Your task to perform on an android device: Go to display settings Image 0: 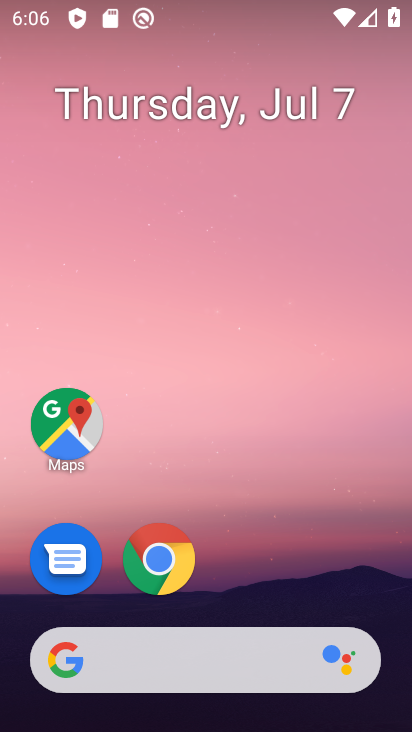
Step 0: drag from (277, 579) to (253, 109)
Your task to perform on an android device: Go to display settings Image 1: 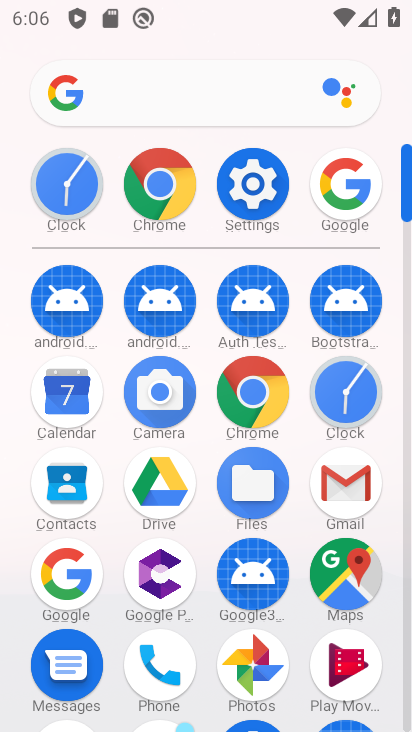
Step 1: click (248, 188)
Your task to perform on an android device: Go to display settings Image 2: 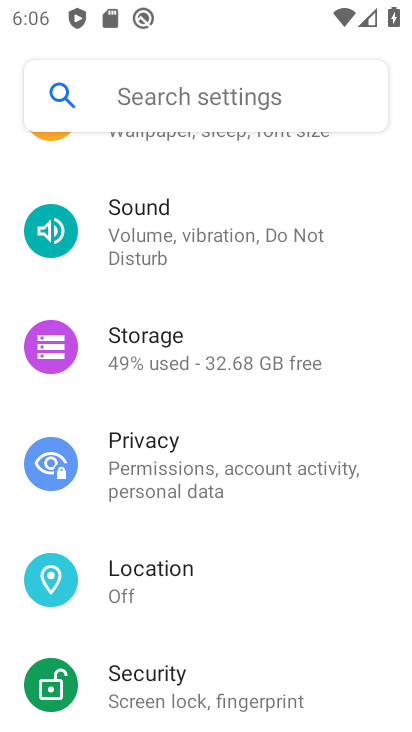
Step 2: drag from (202, 316) to (190, 525)
Your task to perform on an android device: Go to display settings Image 3: 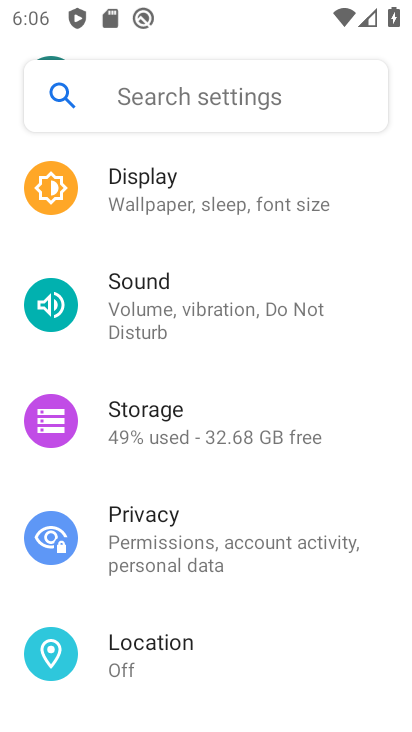
Step 3: drag from (231, 292) to (220, 406)
Your task to perform on an android device: Go to display settings Image 4: 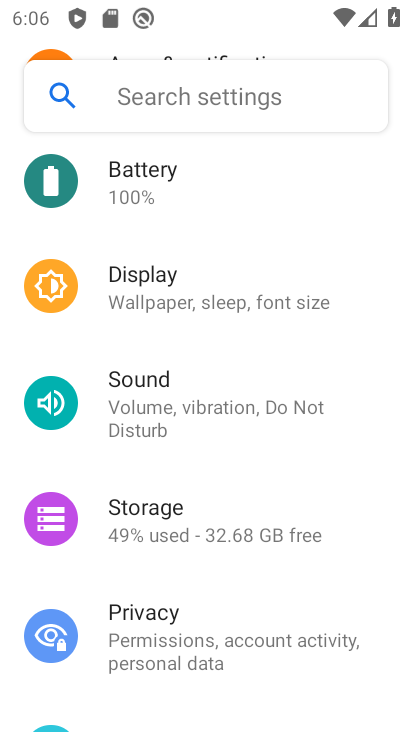
Step 4: click (231, 278)
Your task to perform on an android device: Go to display settings Image 5: 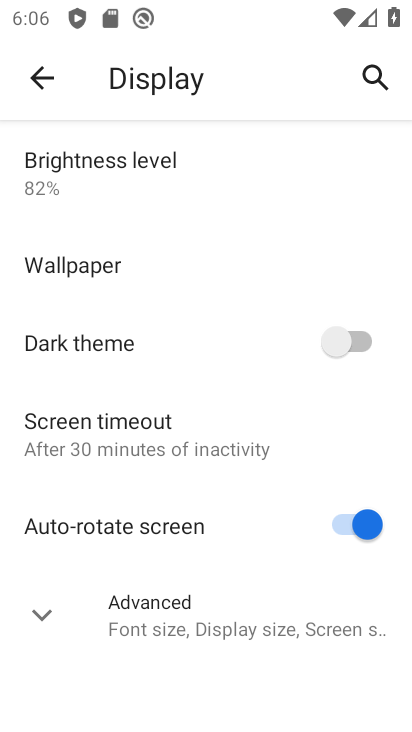
Step 5: task complete